Your task to perform on an android device: stop showing notifications on the lock screen Image 0: 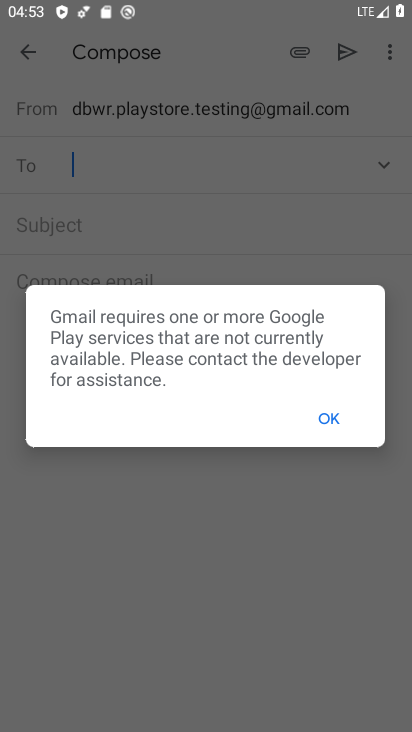
Step 0: press back button
Your task to perform on an android device: stop showing notifications on the lock screen Image 1: 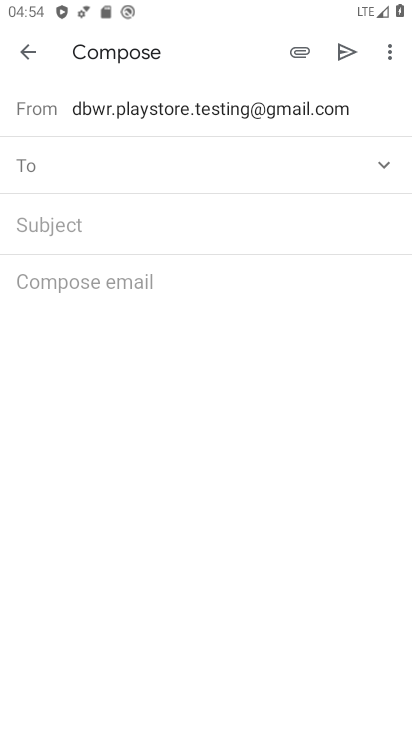
Step 1: press back button
Your task to perform on an android device: stop showing notifications on the lock screen Image 2: 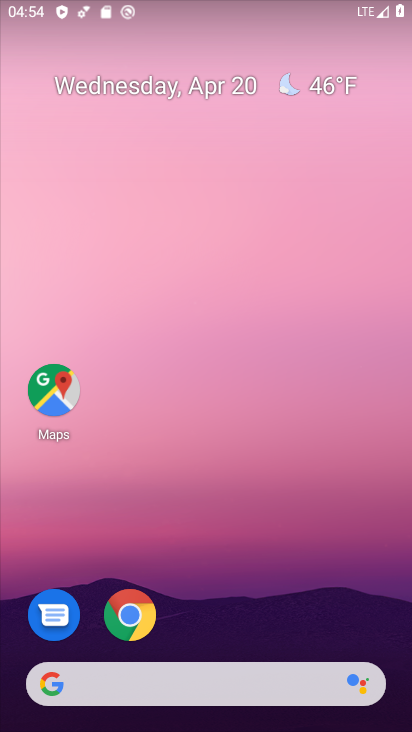
Step 2: drag from (256, 604) to (268, 169)
Your task to perform on an android device: stop showing notifications on the lock screen Image 3: 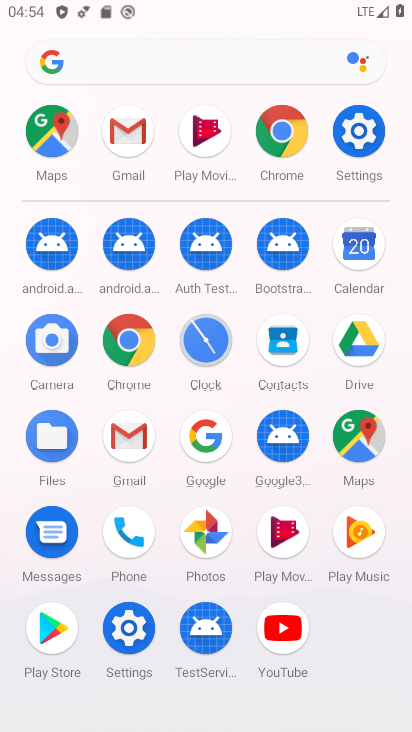
Step 3: click (359, 120)
Your task to perform on an android device: stop showing notifications on the lock screen Image 4: 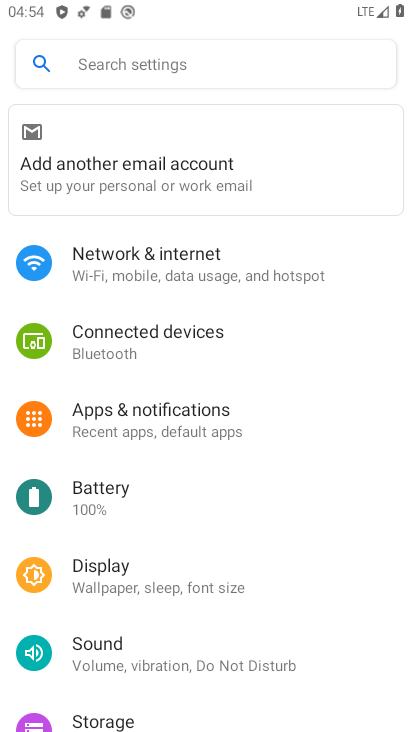
Step 4: click (115, 420)
Your task to perform on an android device: stop showing notifications on the lock screen Image 5: 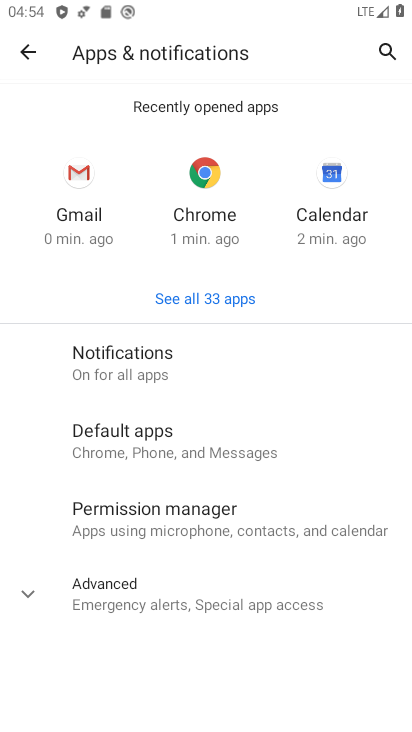
Step 5: click (180, 349)
Your task to perform on an android device: stop showing notifications on the lock screen Image 6: 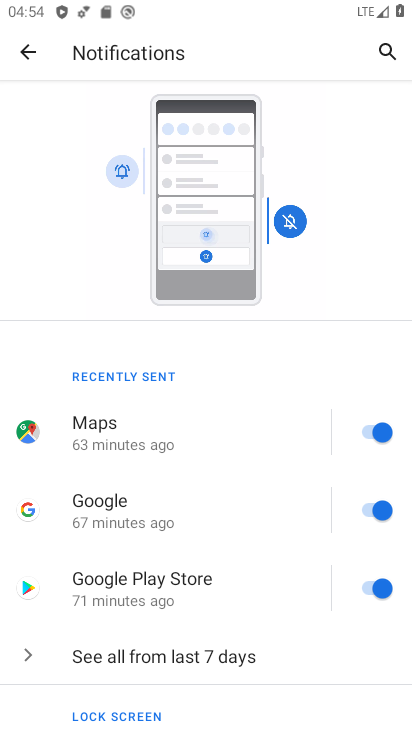
Step 6: drag from (226, 659) to (297, 226)
Your task to perform on an android device: stop showing notifications on the lock screen Image 7: 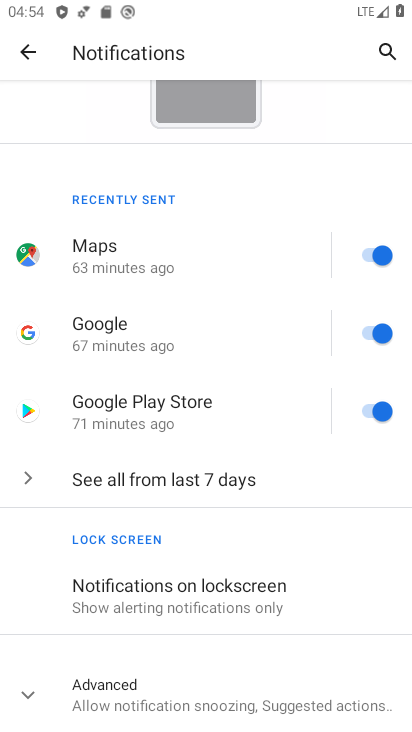
Step 7: click (180, 588)
Your task to perform on an android device: stop showing notifications on the lock screen Image 8: 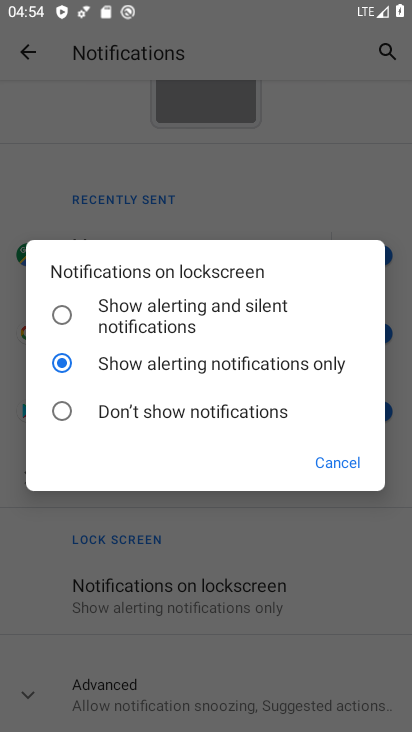
Step 8: click (80, 411)
Your task to perform on an android device: stop showing notifications on the lock screen Image 9: 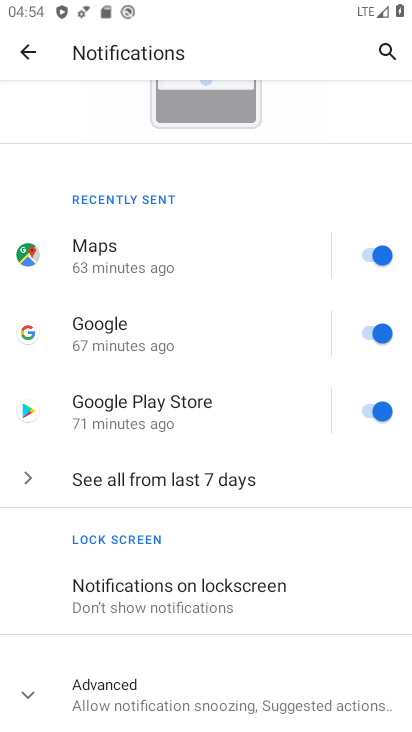
Step 9: task complete